Your task to perform on an android device: Open network settings Image 0: 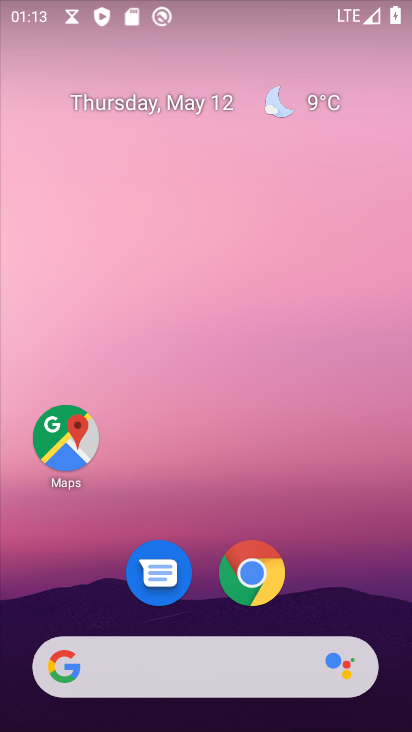
Step 0: drag from (309, 586) to (296, 75)
Your task to perform on an android device: Open network settings Image 1: 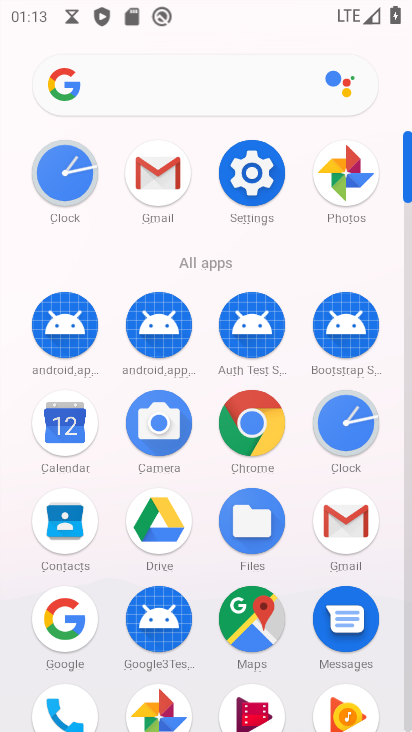
Step 1: click (250, 173)
Your task to perform on an android device: Open network settings Image 2: 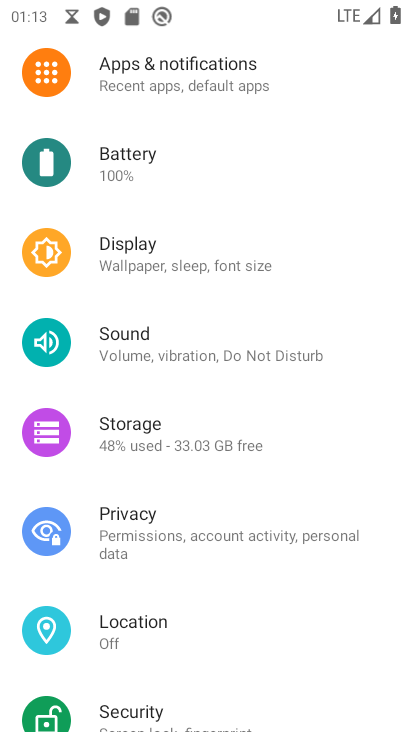
Step 2: drag from (231, 193) to (314, 530)
Your task to perform on an android device: Open network settings Image 3: 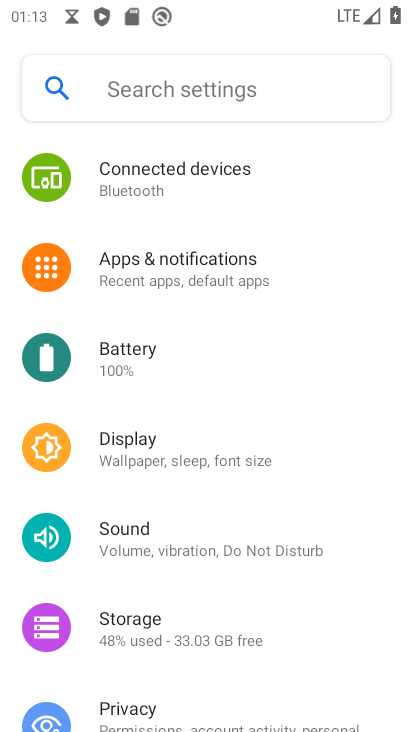
Step 3: drag from (232, 244) to (293, 481)
Your task to perform on an android device: Open network settings Image 4: 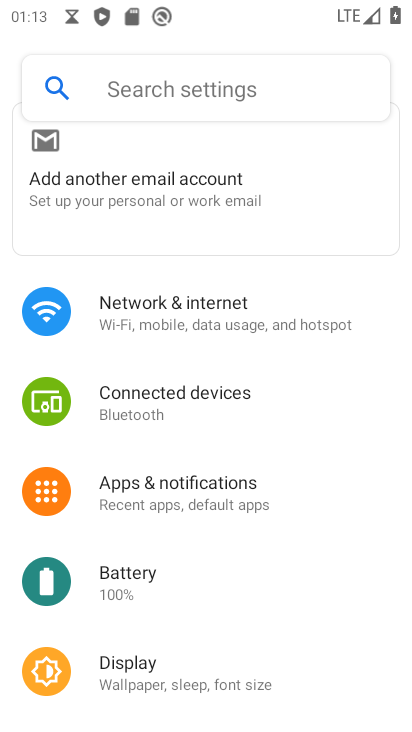
Step 4: click (218, 277)
Your task to perform on an android device: Open network settings Image 5: 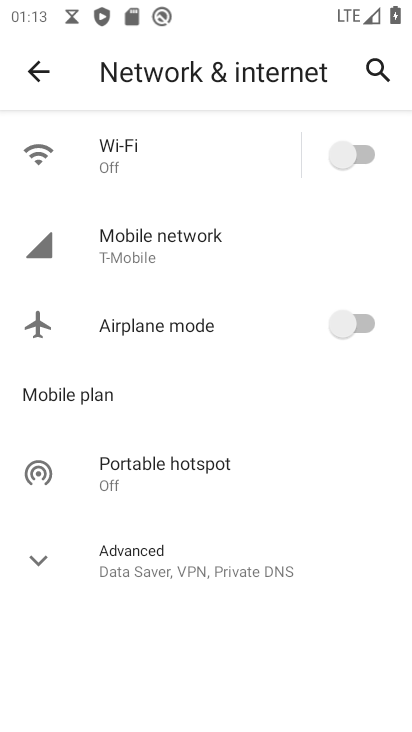
Step 5: click (120, 258)
Your task to perform on an android device: Open network settings Image 6: 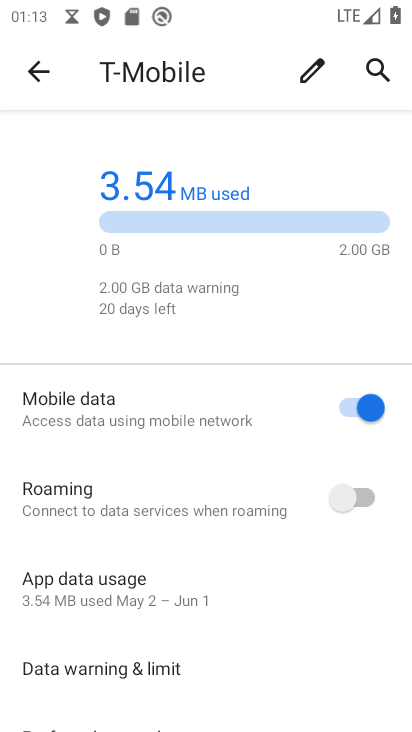
Step 6: task complete